Your task to perform on an android device: Open calendar and show me the fourth week of next month Image 0: 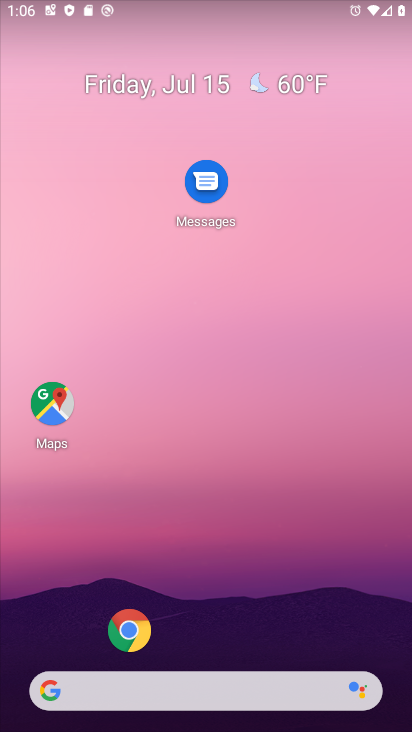
Step 0: drag from (114, 328) to (151, 138)
Your task to perform on an android device: Open calendar and show me the fourth week of next month Image 1: 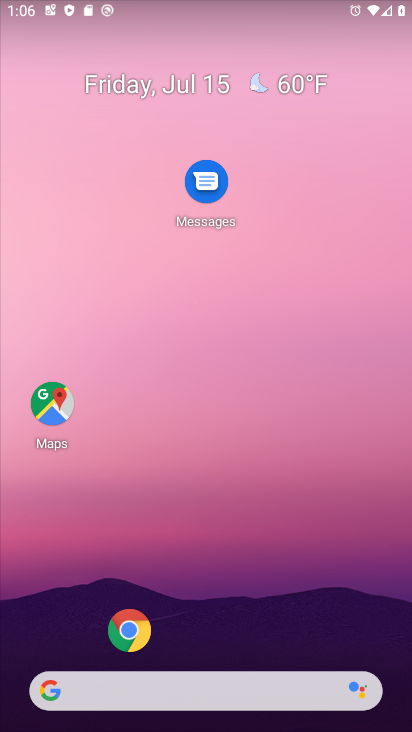
Step 1: drag from (84, 402) to (160, 134)
Your task to perform on an android device: Open calendar and show me the fourth week of next month Image 2: 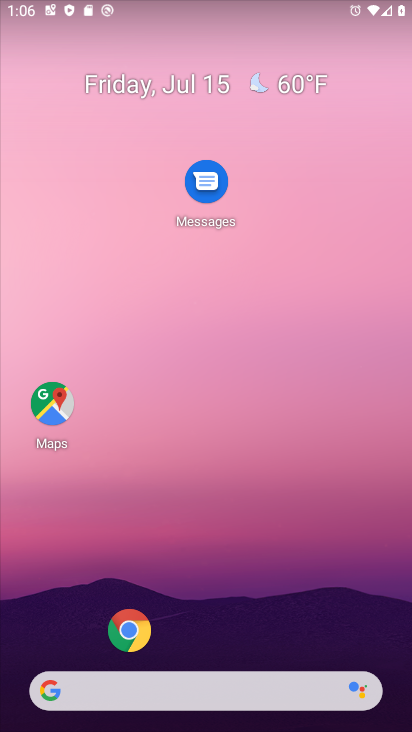
Step 2: drag from (74, 396) to (164, 21)
Your task to perform on an android device: Open calendar and show me the fourth week of next month Image 3: 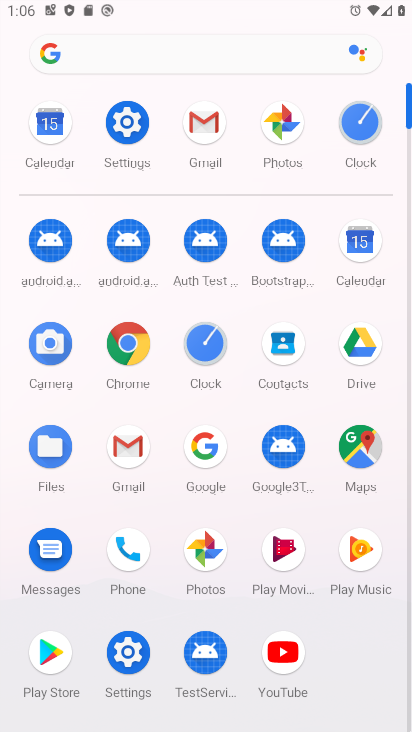
Step 3: click (357, 254)
Your task to perform on an android device: Open calendar and show me the fourth week of next month Image 4: 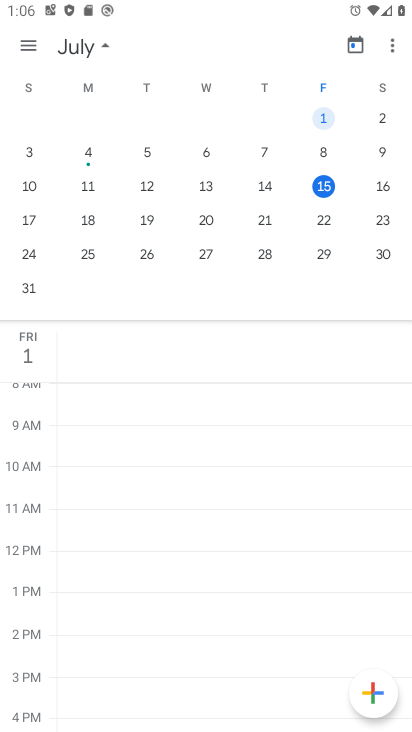
Step 4: drag from (390, 159) to (39, 163)
Your task to perform on an android device: Open calendar and show me the fourth week of next month Image 5: 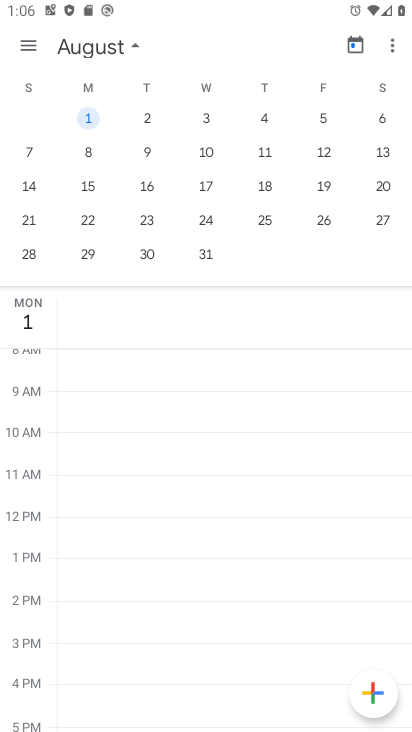
Step 5: click (83, 220)
Your task to perform on an android device: Open calendar and show me the fourth week of next month Image 6: 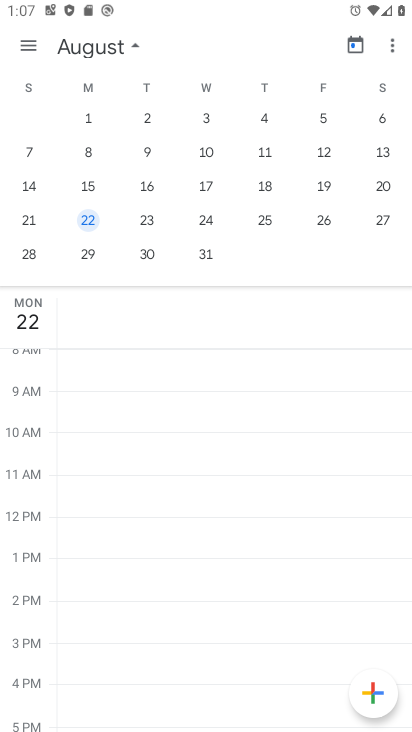
Step 6: task complete